Your task to perform on an android device: toggle show notifications on the lock screen Image 0: 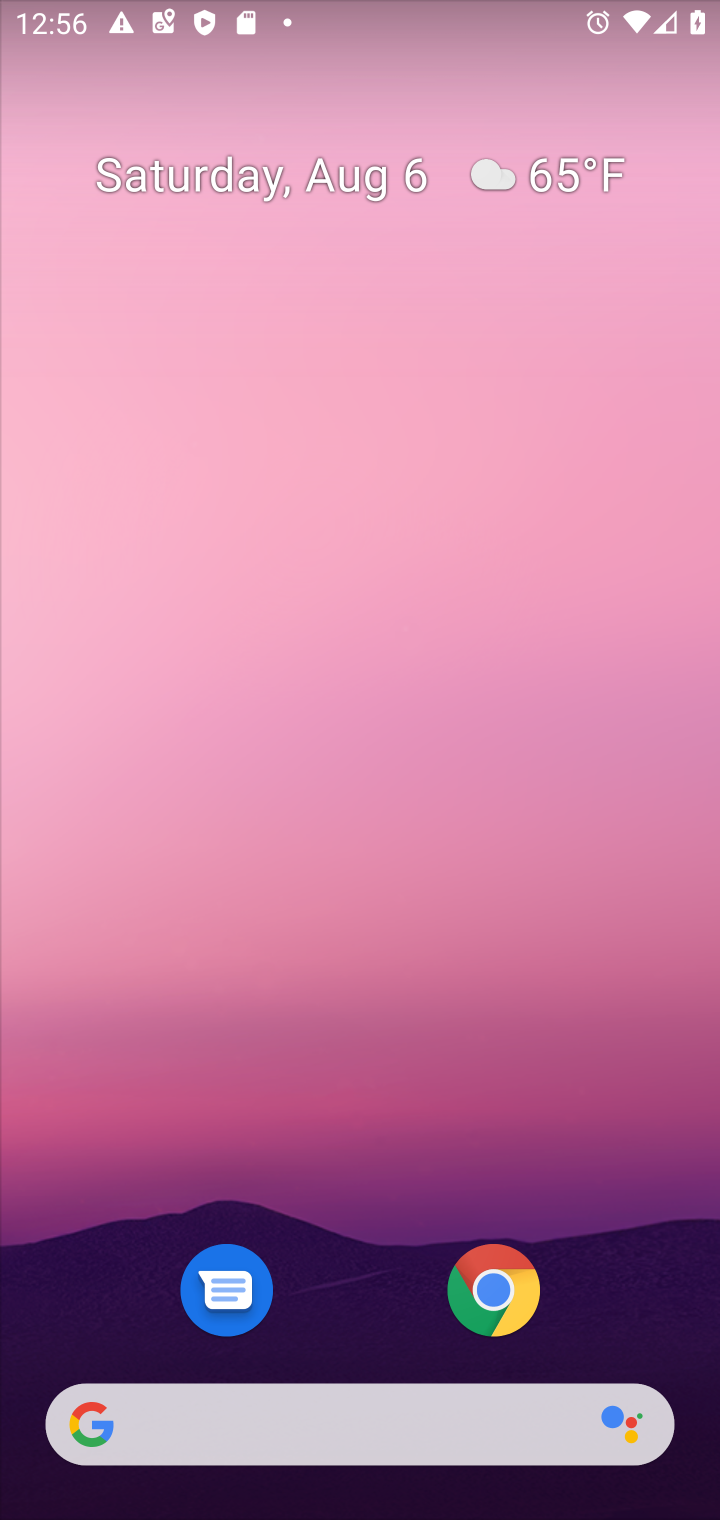
Step 0: drag from (373, 1286) to (384, 319)
Your task to perform on an android device: toggle show notifications on the lock screen Image 1: 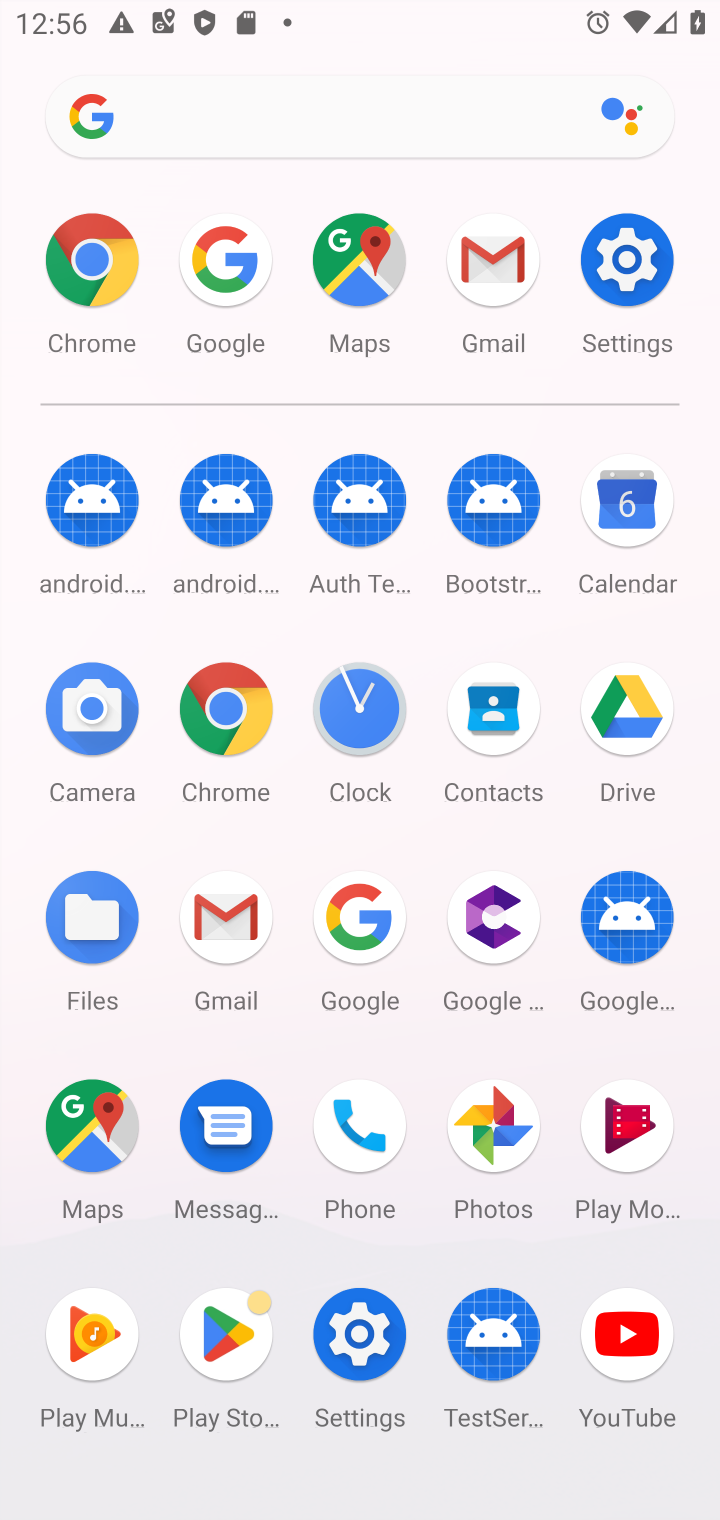
Step 1: click (613, 247)
Your task to perform on an android device: toggle show notifications on the lock screen Image 2: 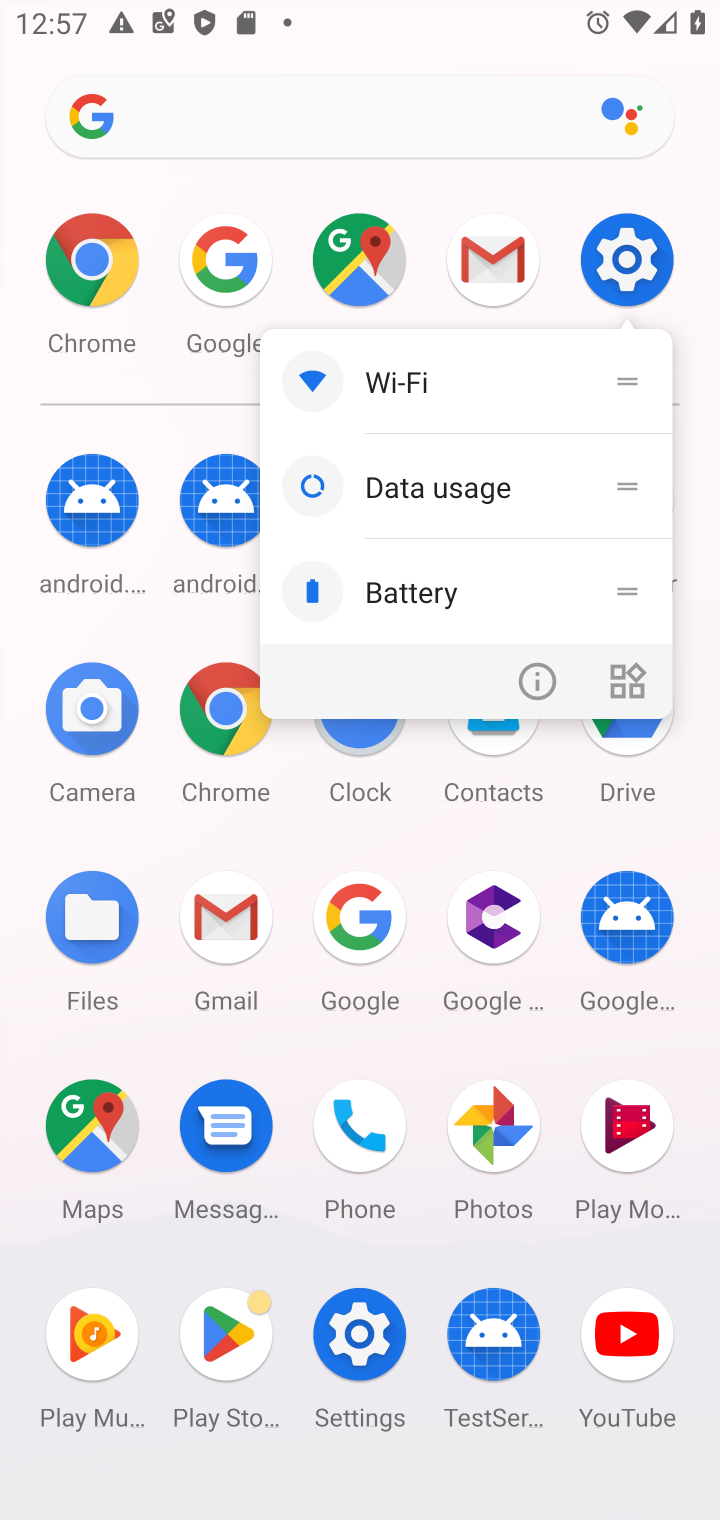
Step 2: click (626, 263)
Your task to perform on an android device: toggle show notifications on the lock screen Image 3: 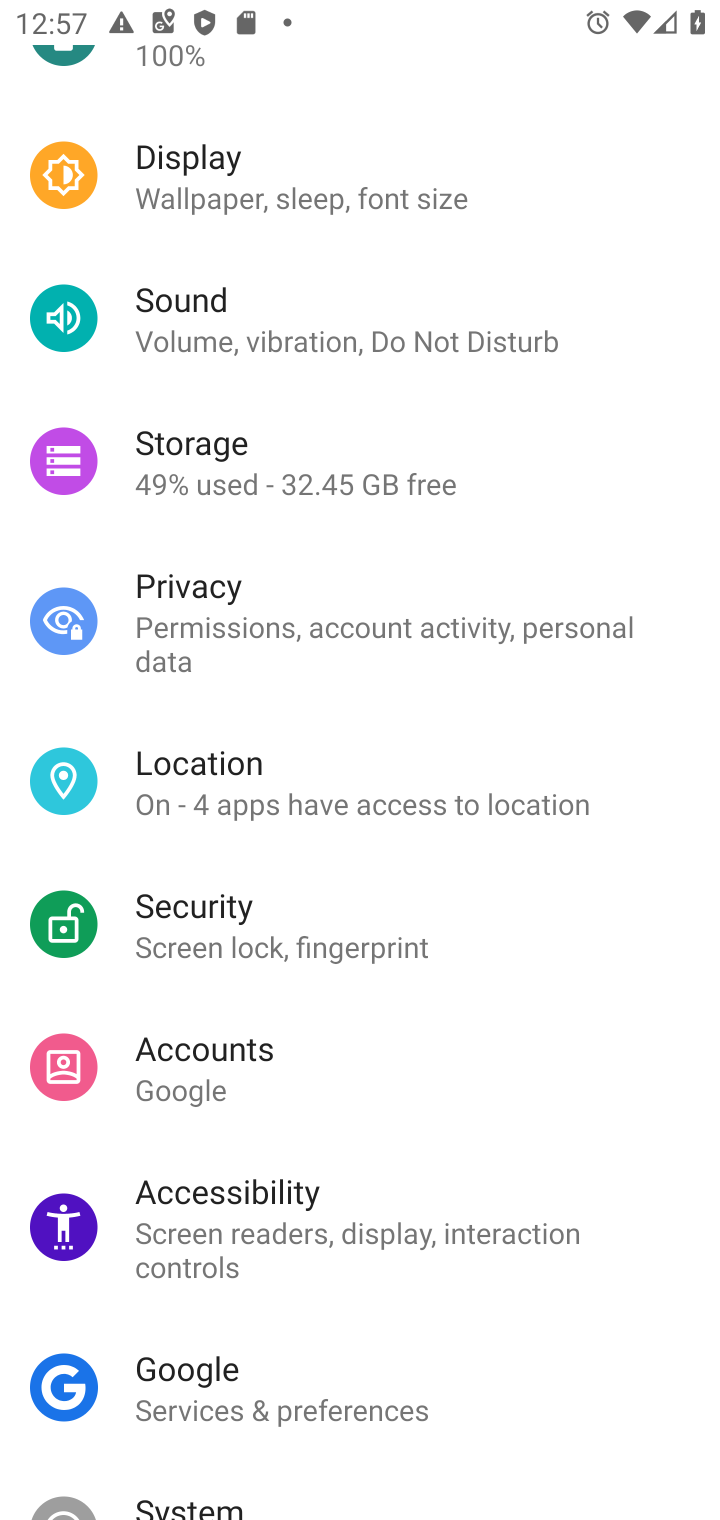
Step 3: drag from (272, 291) to (323, 1382)
Your task to perform on an android device: toggle show notifications on the lock screen Image 4: 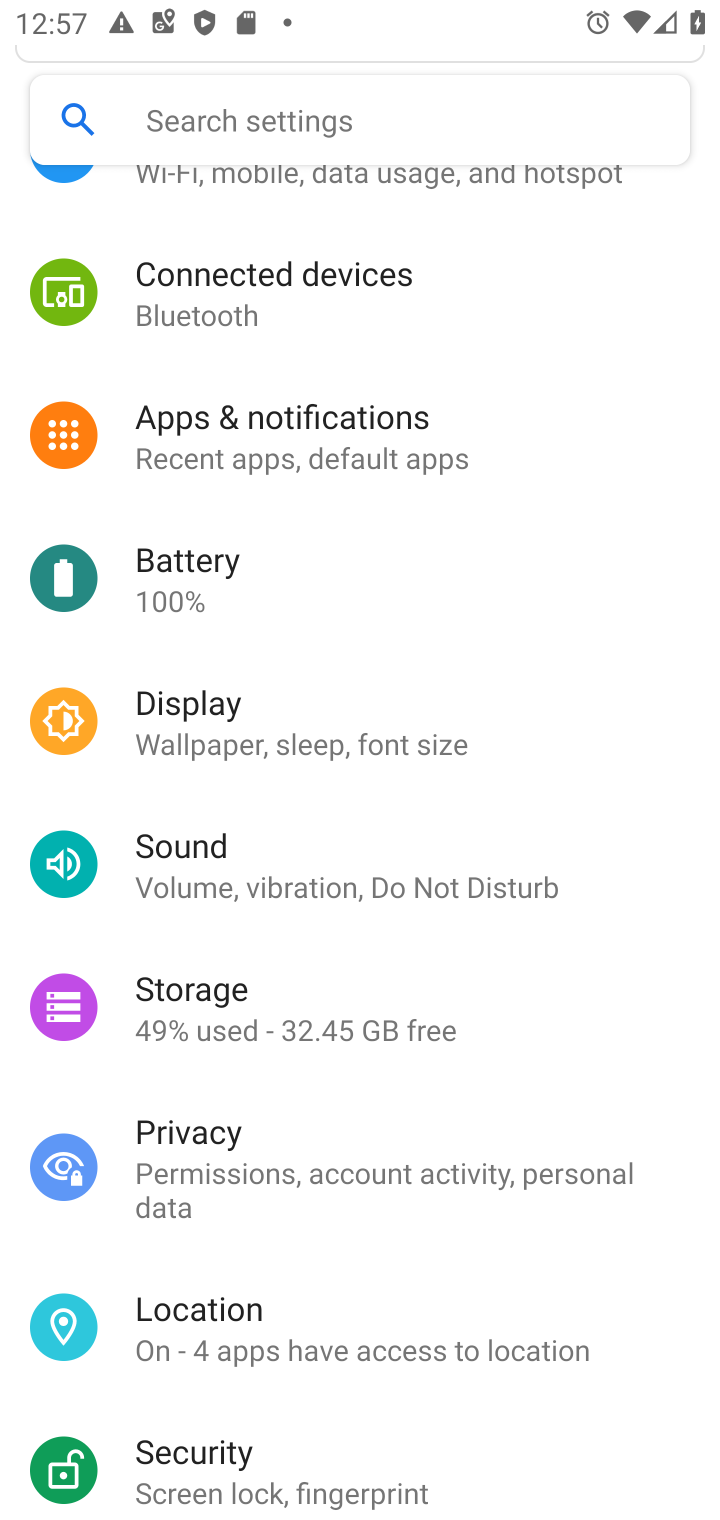
Step 4: click (483, 425)
Your task to perform on an android device: toggle show notifications on the lock screen Image 5: 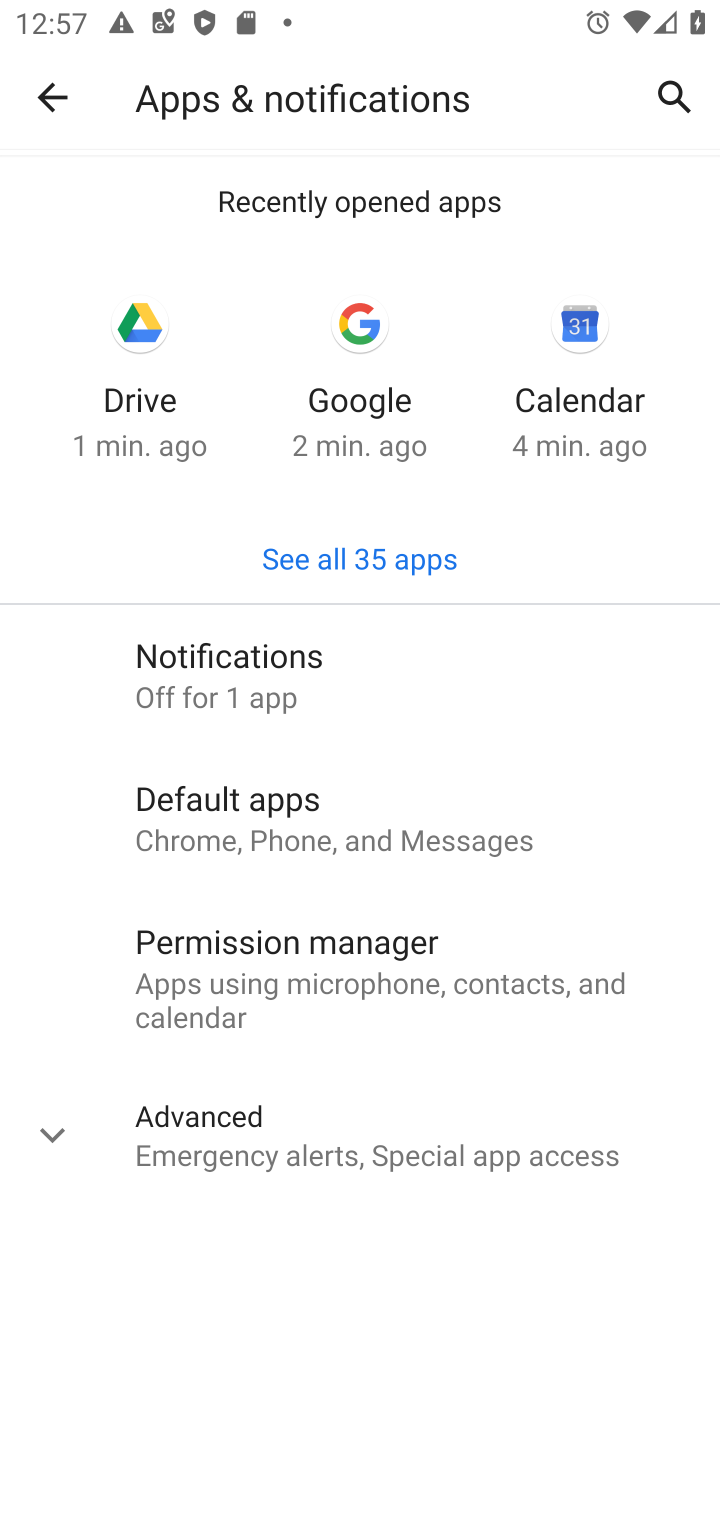
Step 5: click (346, 666)
Your task to perform on an android device: toggle show notifications on the lock screen Image 6: 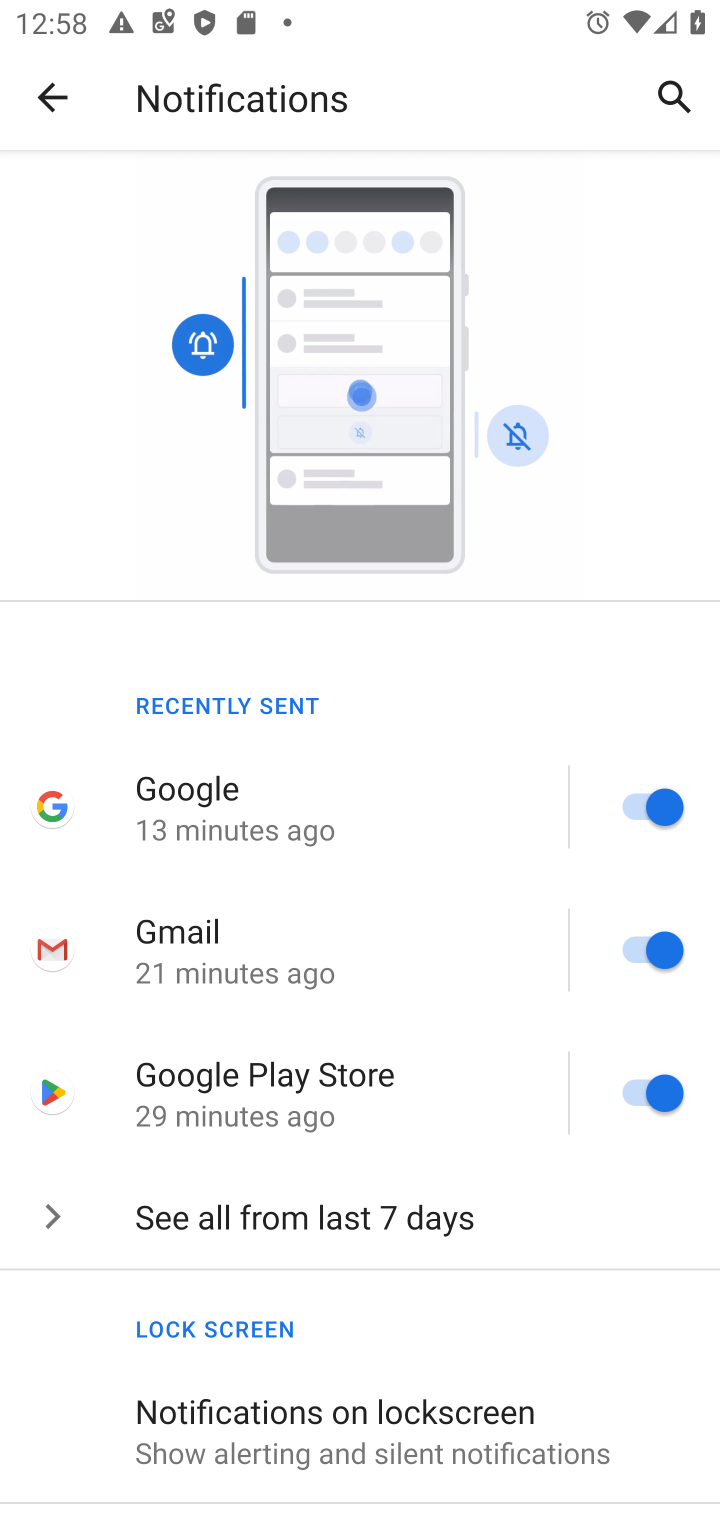
Step 6: click (460, 1410)
Your task to perform on an android device: toggle show notifications on the lock screen Image 7: 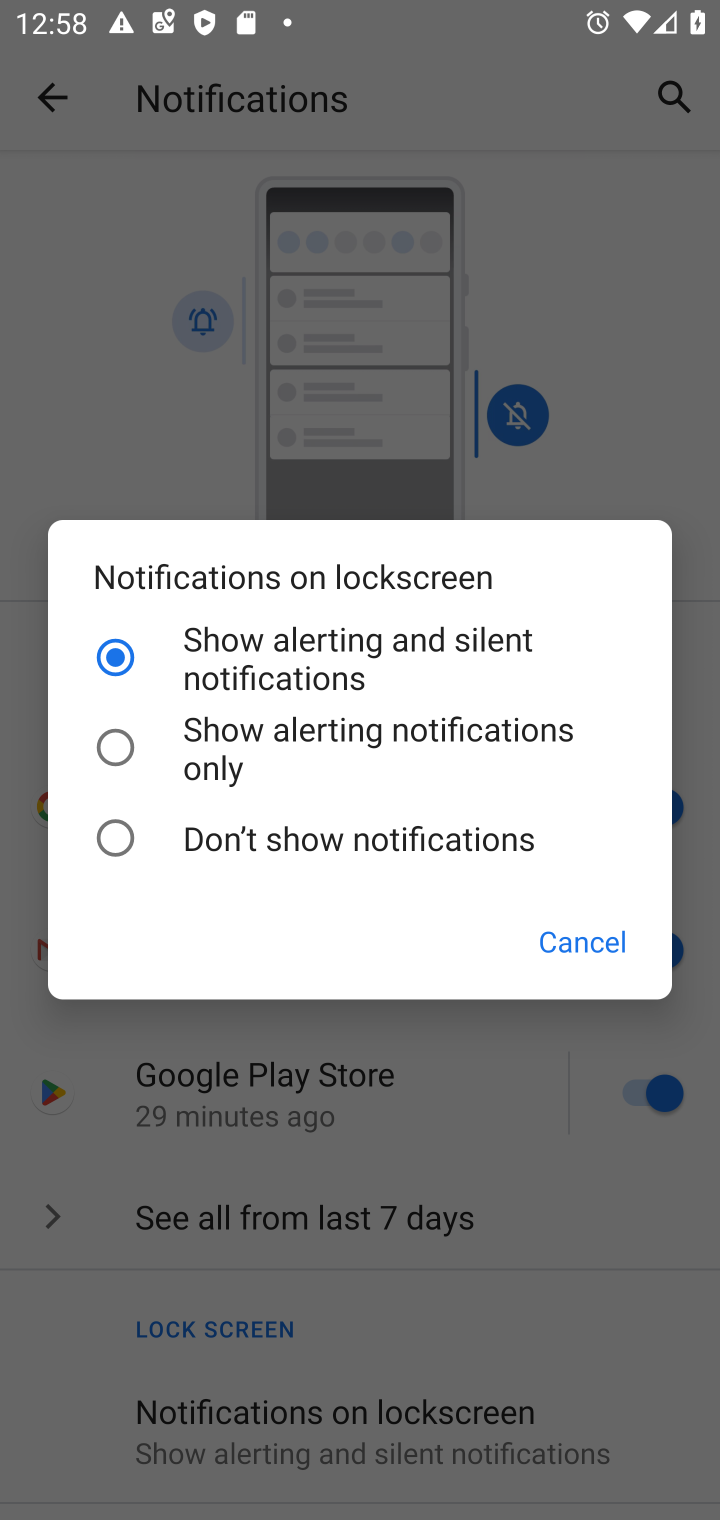
Step 7: click (122, 743)
Your task to perform on an android device: toggle show notifications on the lock screen Image 8: 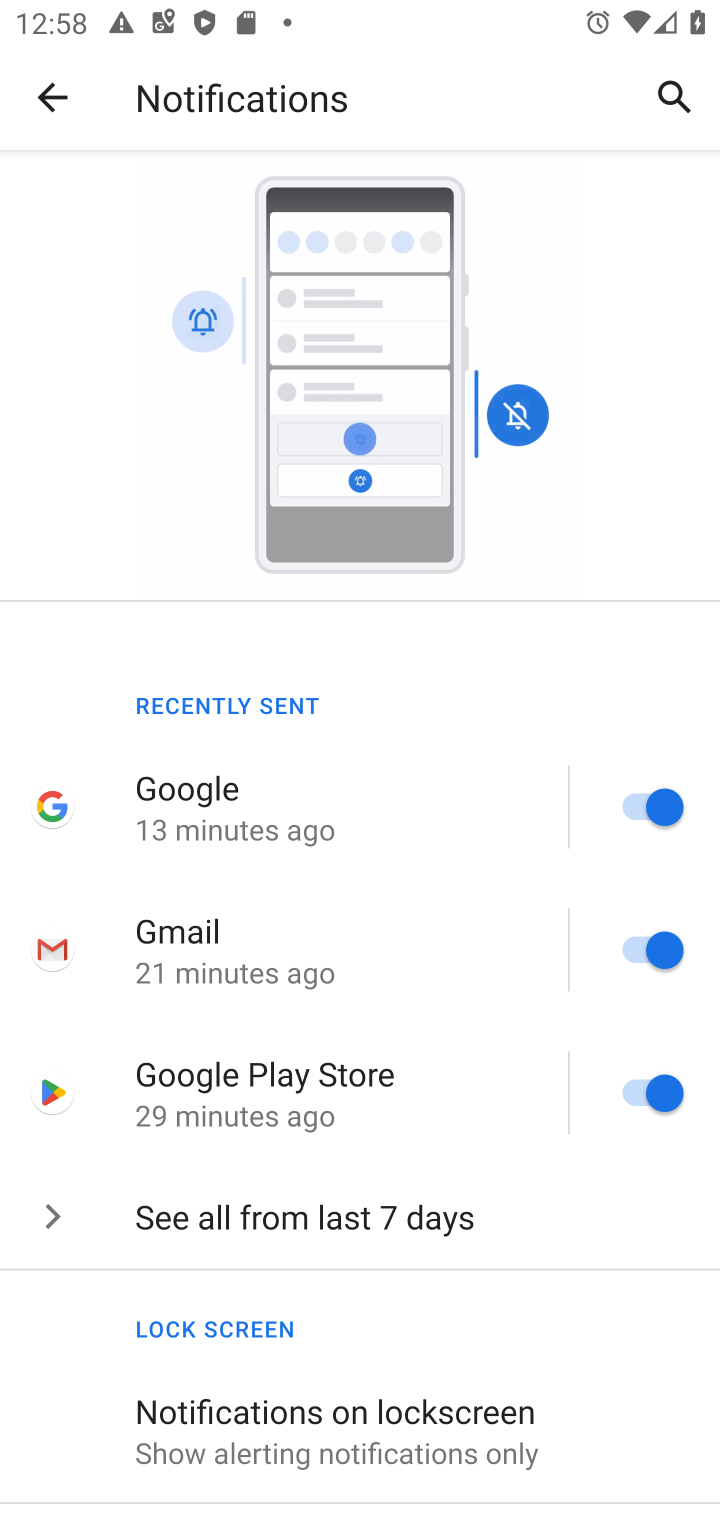
Step 8: task complete